Your task to perform on an android device: Show me productivity apps on the Play Store Image 0: 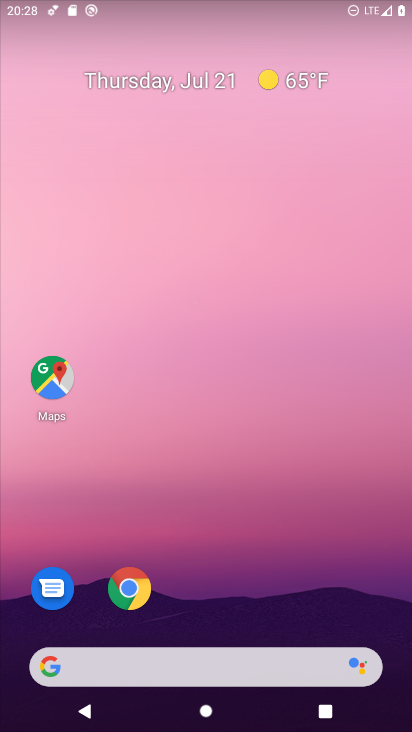
Step 0: drag from (215, 626) to (163, 61)
Your task to perform on an android device: Show me productivity apps on the Play Store Image 1: 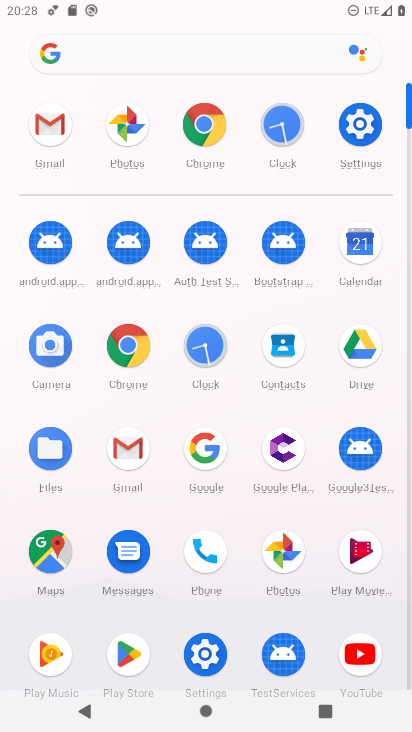
Step 1: click (121, 649)
Your task to perform on an android device: Show me productivity apps on the Play Store Image 2: 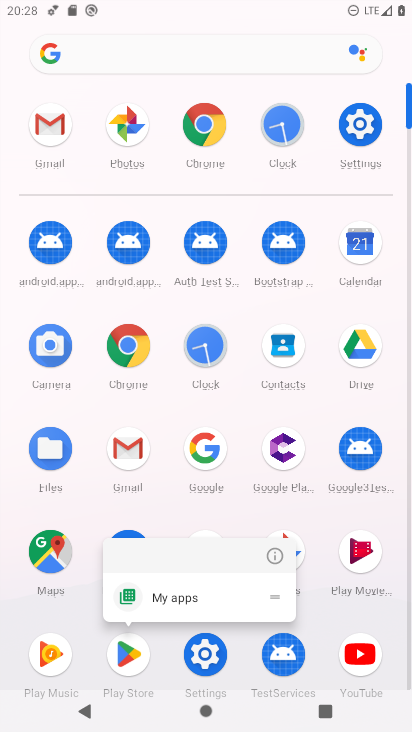
Step 2: click (135, 639)
Your task to perform on an android device: Show me productivity apps on the Play Store Image 3: 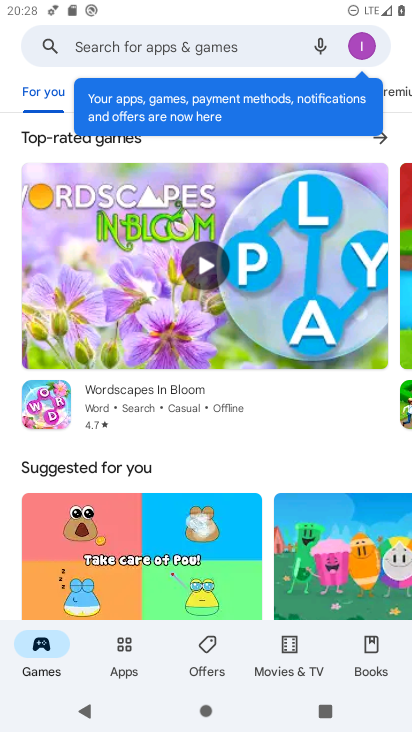
Step 3: click (123, 666)
Your task to perform on an android device: Show me productivity apps on the Play Store Image 4: 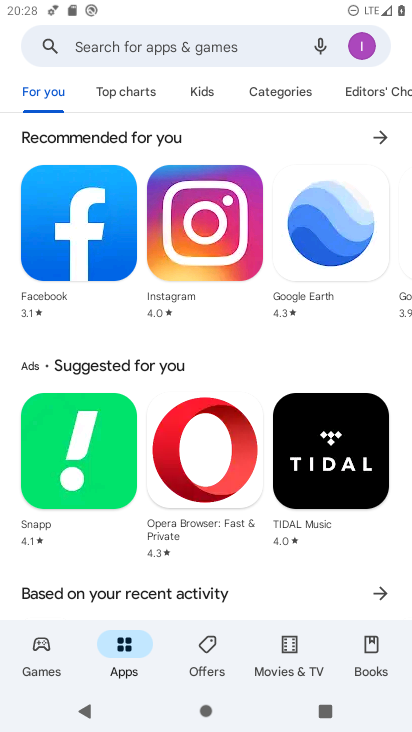
Step 4: click (277, 82)
Your task to perform on an android device: Show me productivity apps on the Play Store Image 5: 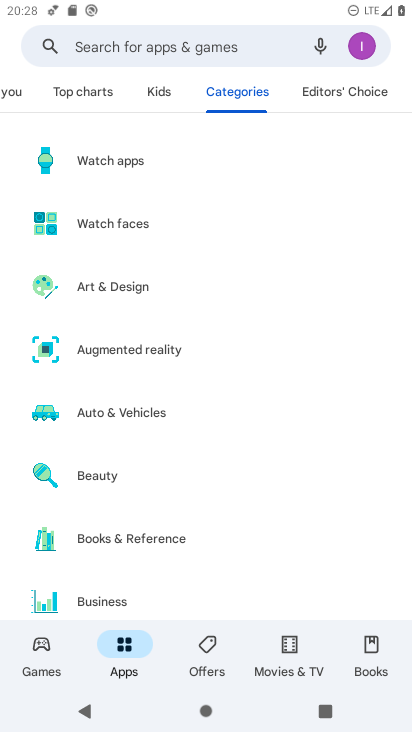
Step 5: click (277, 87)
Your task to perform on an android device: Show me productivity apps on the Play Store Image 6: 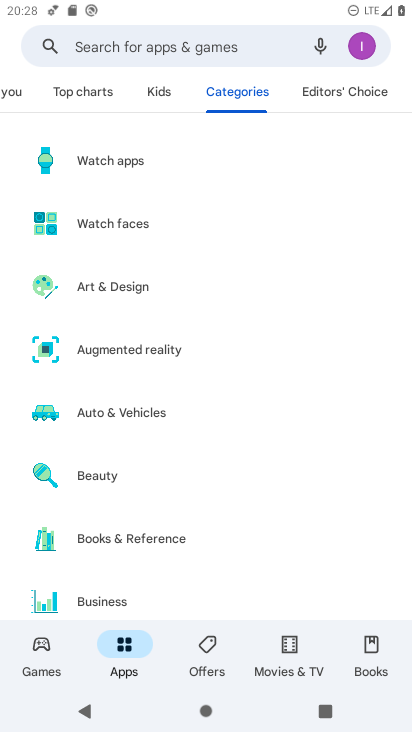
Step 6: drag from (305, 488) to (252, 1)
Your task to perform on an android device: Show me productivity apps on the Play Store Image 7: 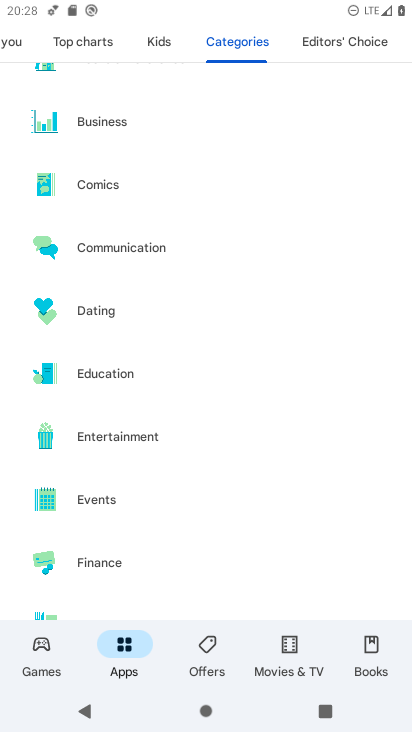
Step 7: drag from (154, 525) to (153, 110)
Your task to perform on an android device: Show me productivity apps on the Play Store Image 8: 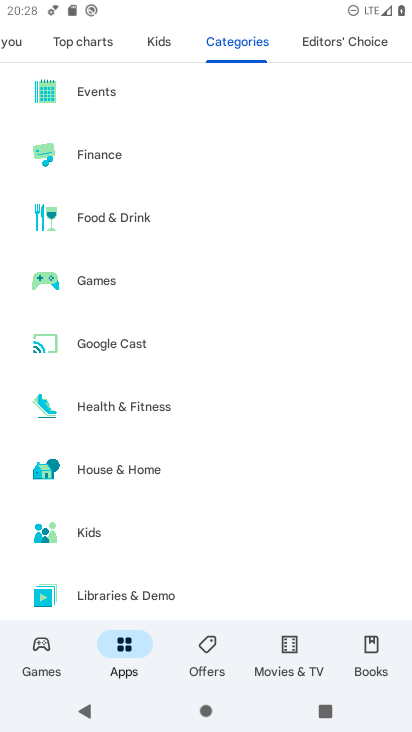
Step 8: drag from (182, 594) to (137, 186)
Your task to perform on an android device: Show me productivity apps on the Play Store Image 9: 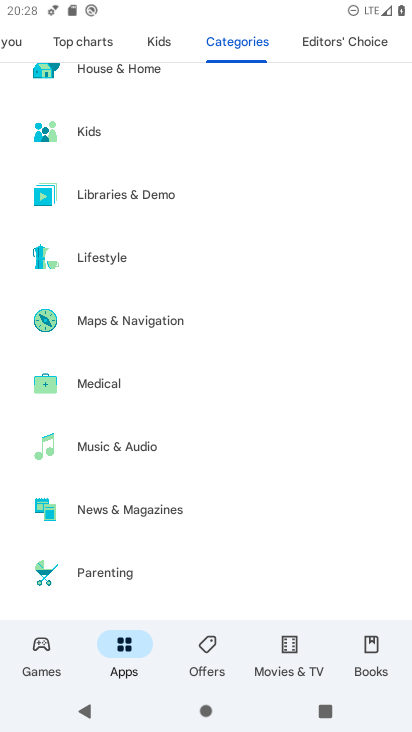
Step 9: drag from (92, 523) to (105, 155)
Your task to perform on an android device: Show me productivity apps on the Play Store Image 10: 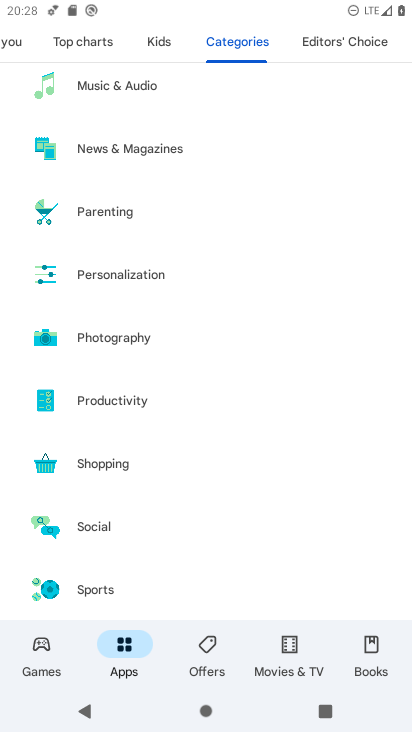
Step 10: click (106, 409)
Your task to perform on an android device: Show me productivity apps on the Play Store Image 11: 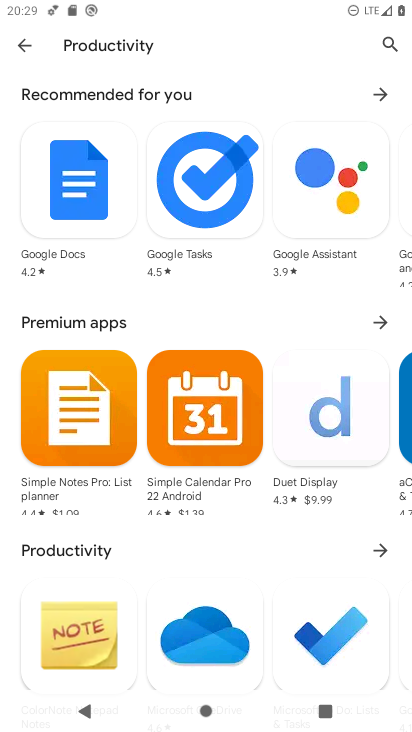
Step 11: task complete